Your task to perform on an android device: change the clock display to show seconds Image 0: 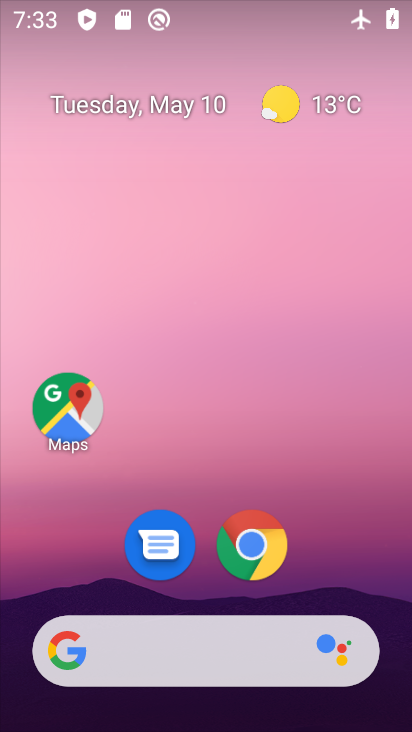
Step 0: drag from (210, 591) to (218, 82)
Your task to perform on an android device: change the clock display to show seconds Image 1: 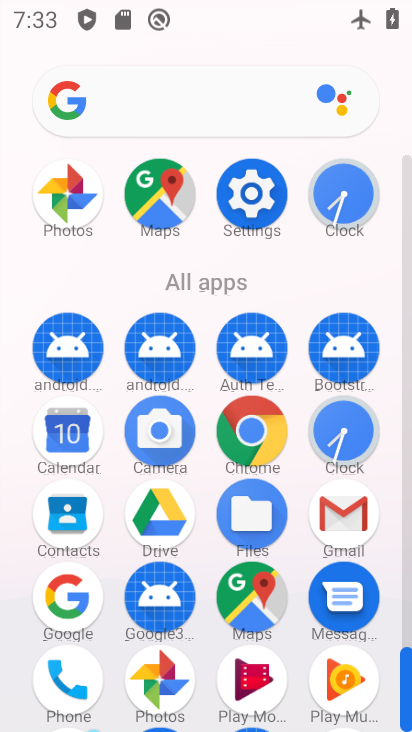
Step 1: click (332, 188)
Your task to perform on an android device: change the clock display to show seconds Image 2: 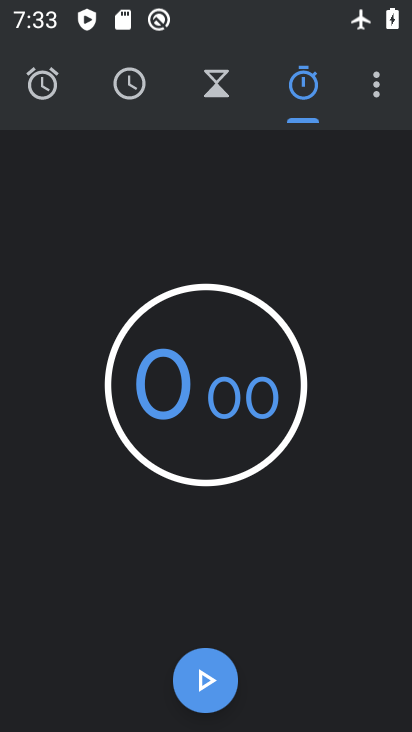
Step 2: click (377, 90)
Your task to perform on an android device: change the clock display to show seconds Image 3: 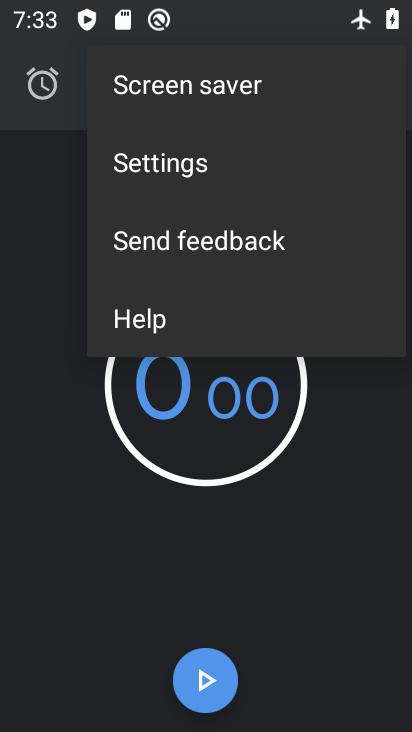
Step 3: click (226, 162)
Your task to perform on an android device: change the clock display to show seconds Image 4: 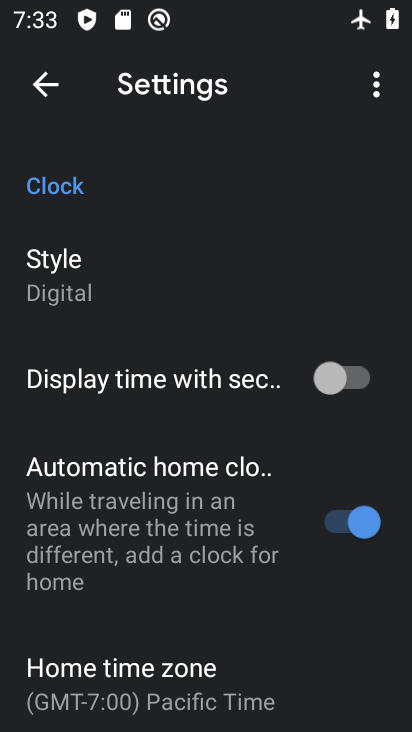
Step 4: click (348, 378)
Your task to perform on an android device: change the clock display to show seconds Image 5: 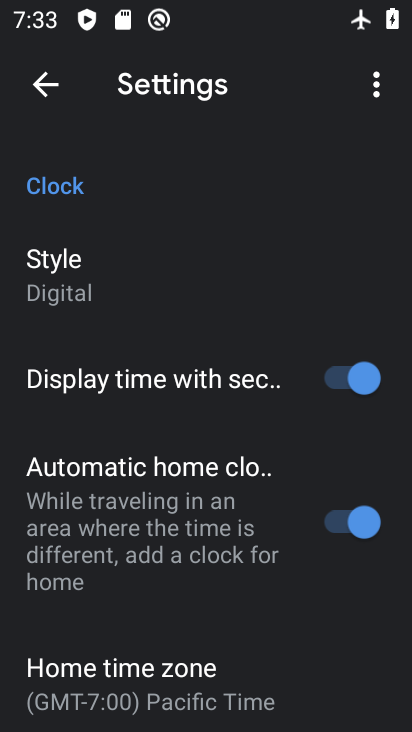
Step 5: task complete